Your task to perform on an android device: Open sound settings Image 0: 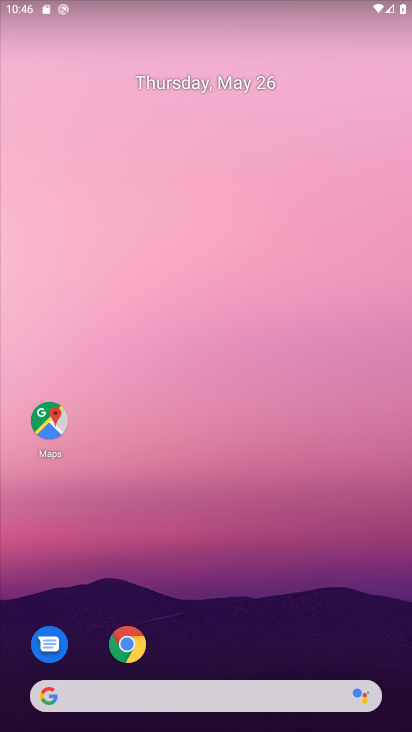
Step 0: drag from (347, 649) to (369, 190)
Your task to perform on an android device: Open sound settings Image 1: 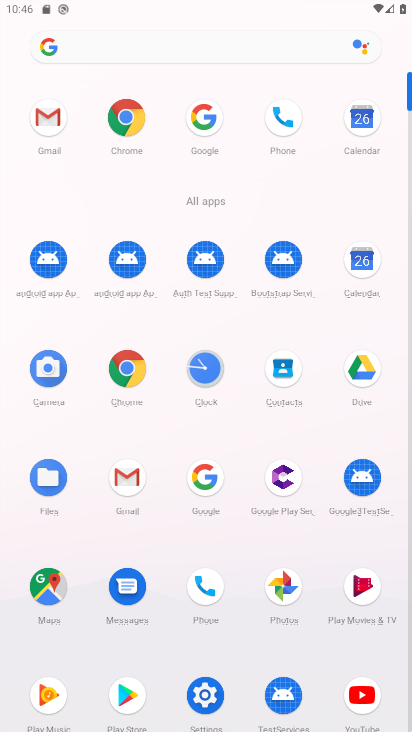
Step 1: click (209, 699)
Your task to perform on an android device: Open sound settings Image 2: 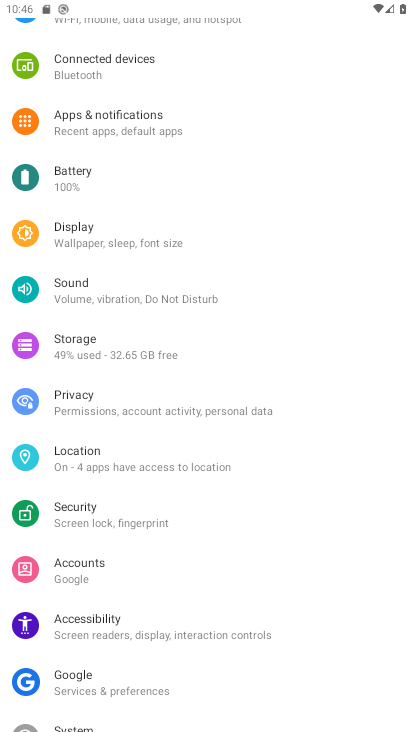
Step 2: drag from (314, 212) to (315, 329)
Your task to perform on an android device: Open sound settings Image 3: 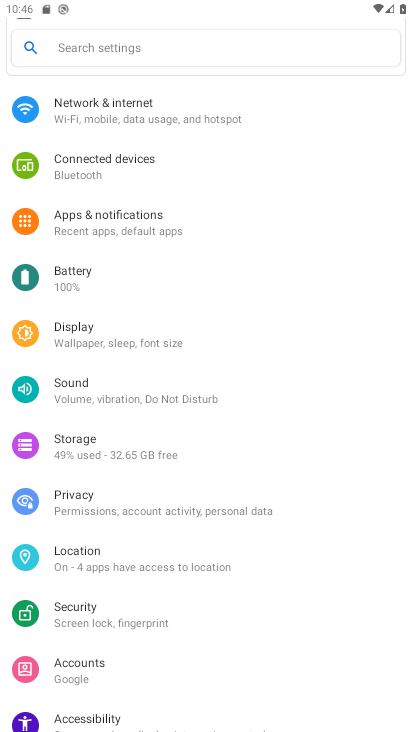
Step 3: drag from (336, 186) to (333, 305)
Your task to perform on an android device: Open sound settings Image 4: 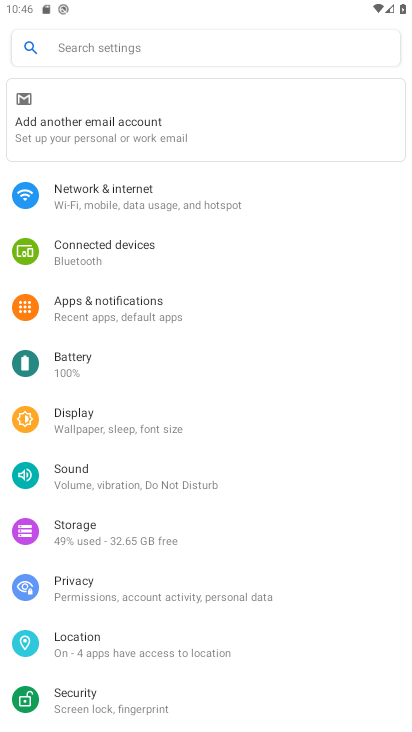
Step 4: drag from (337, 192) to (331, 317)
Your task to perform on an android device: Open sound settings Image 5: 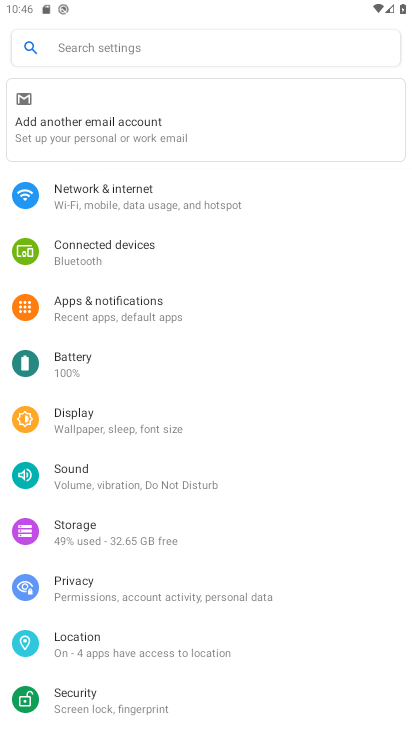
Step 5: drag from (342, 428) to (342, 313)
Your task to perform on an android device: Open sound settings Image 6: 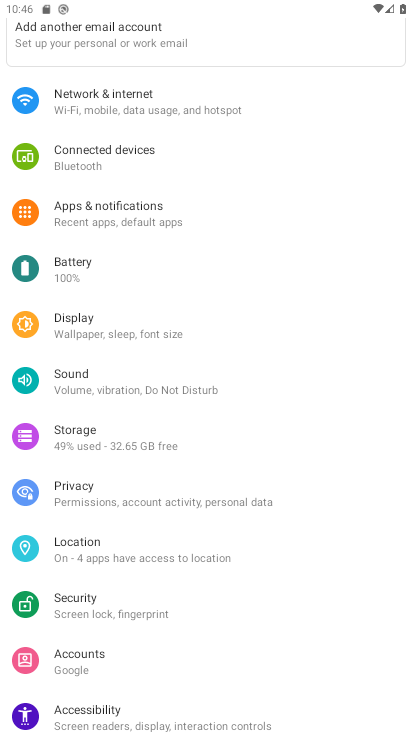
Step 6: drag from (362, 450) to (365, 344)
Your task to perform on an android device: Open sound settings Image 7: 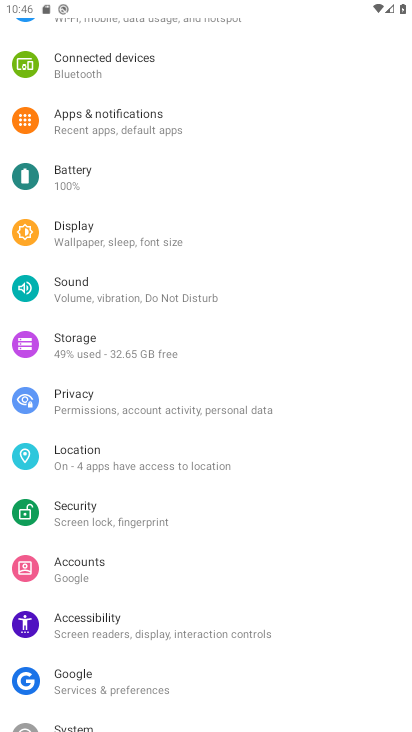
Step 7: drag from (370, 493) to (367, 361)
Your task to perform on an android device: Open sound settings Image 8: 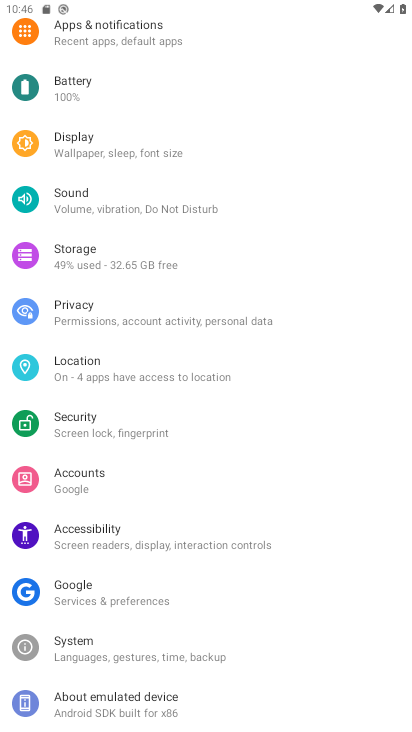
Step 8: drag from (366, 504) to (365, 397)
Your task to perform on an android device: Open sound settings Image 9: 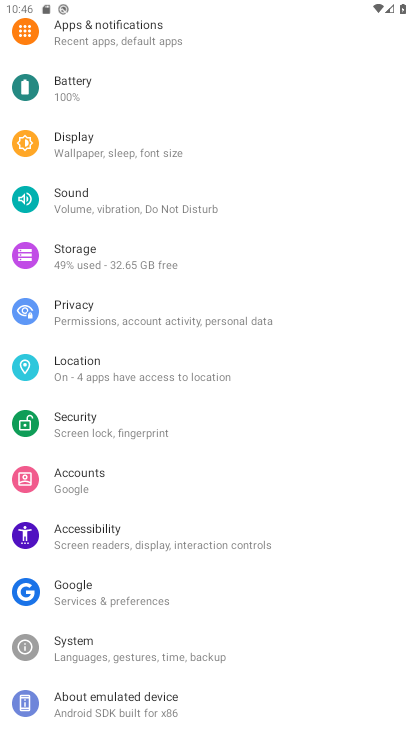
Step 9: drag from (354, 192) to (351, 341)
Your task to perform on an android device: Open sound settings Image 10: 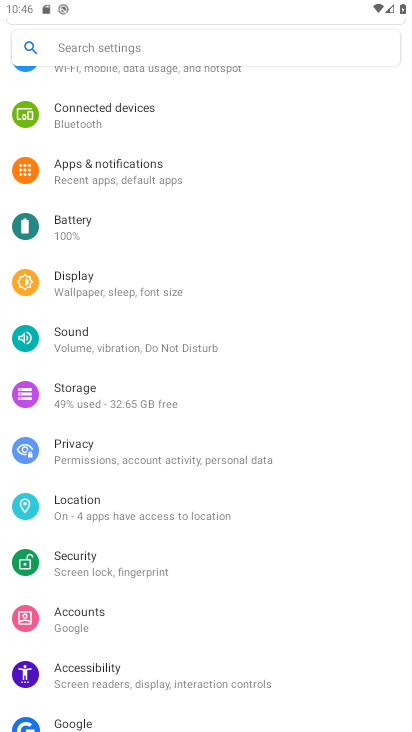
Step 10: drag from (338, 235) to (344, 359)
Your task to perform on an android device: Open sound settings Image 11: 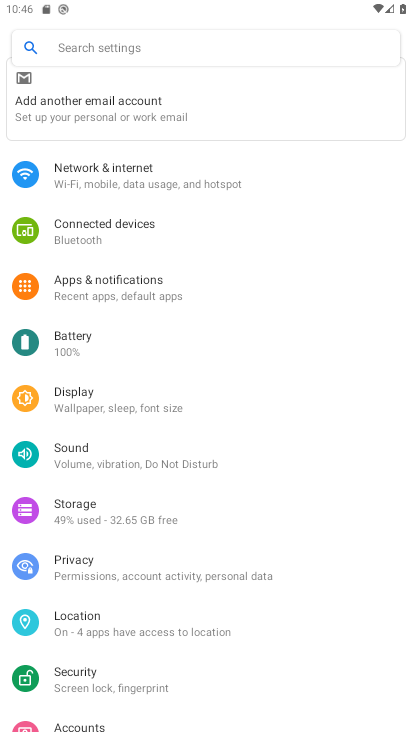
Step 11: drag from (349, 210) to (343, 338)
Your task to perform on an android device: Open sound settings Image 12: 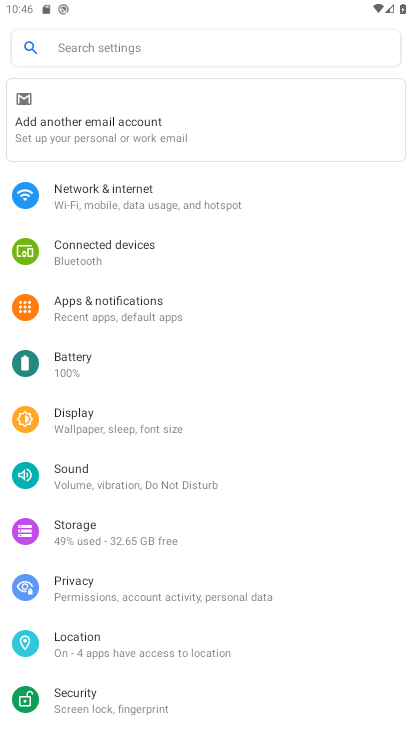
Step 12: drag from (334, 445) to (340, 292)
Your task to perform on an android device: Open sound settings Image 13: 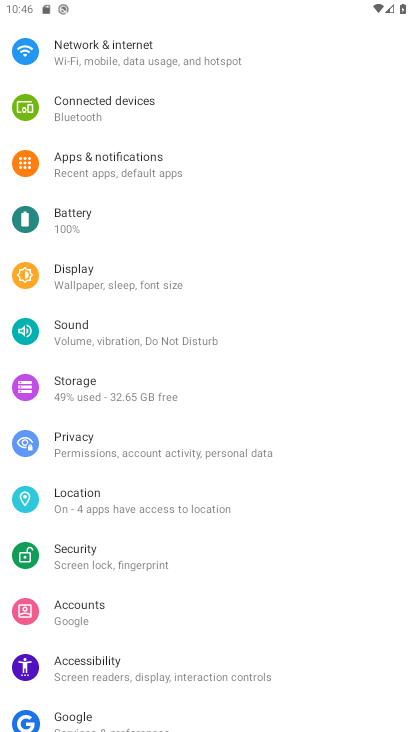
Step 13: drag from (353, 417) to (351, 273)
Your task to perform on an android device: Open sound settings Image 14: 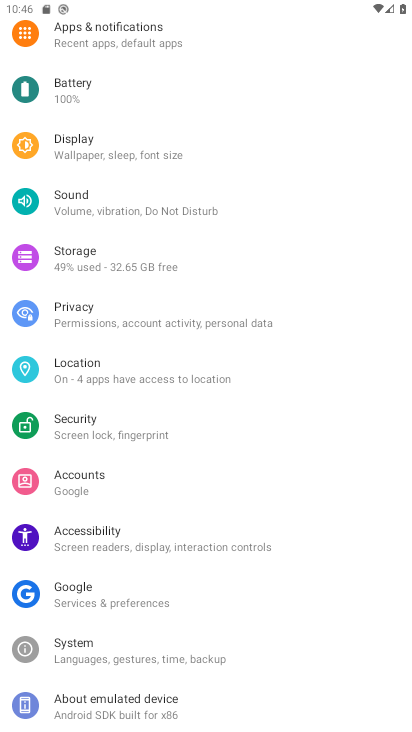
Step 14: click (159, 208)
Your task to perform on an android device: Open sound settings Image 15: 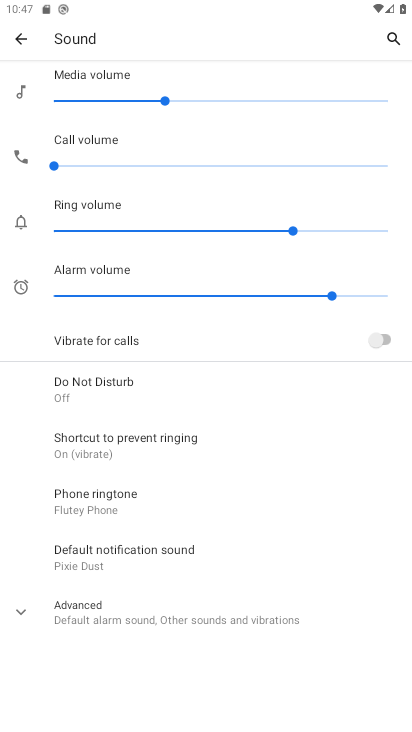
Step 15: task complete